Your task to perform on an android device: Open Reddit.com Image 0: 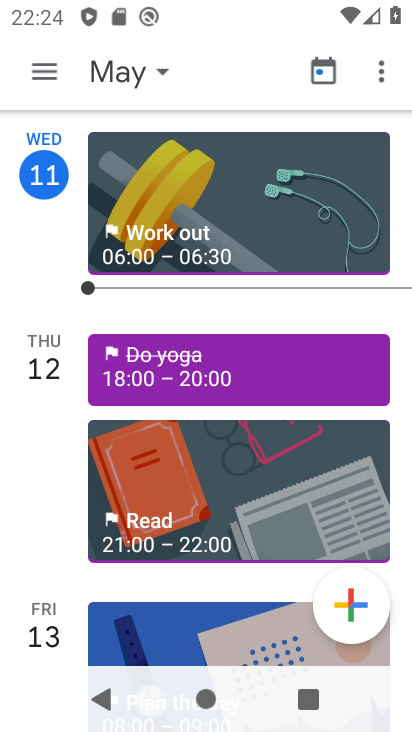
Step 0: press home button
Your task to perform on an android device: Open Reddit.com Image 1: 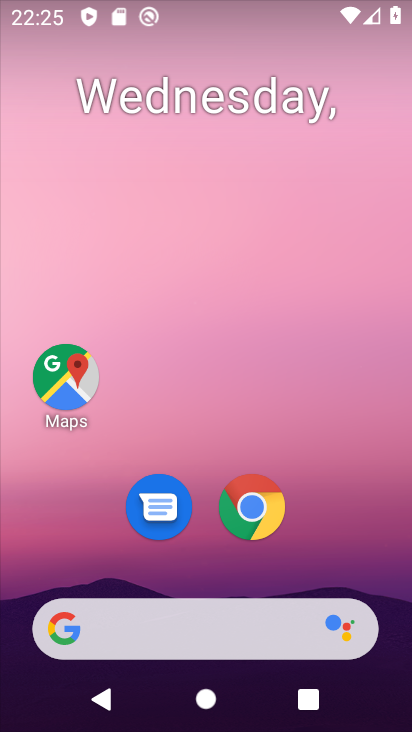
Step 1: click (256, 495)
Your task to perform on an android device: Open Reddit.com Image 2: 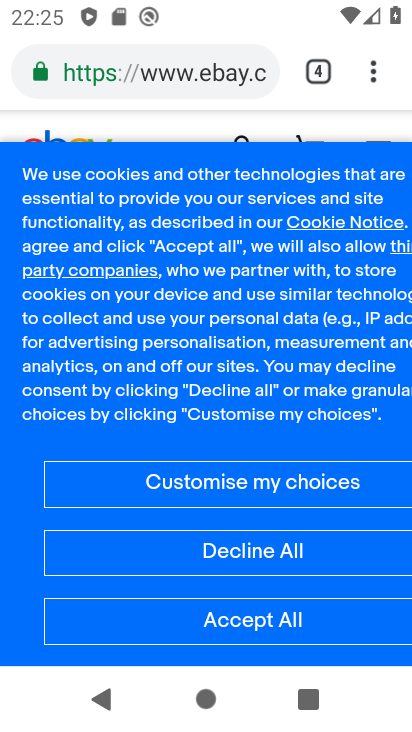
Step 2: click (347, 73)
Your task to perform on an android device: Open Reddit.com Image 3: 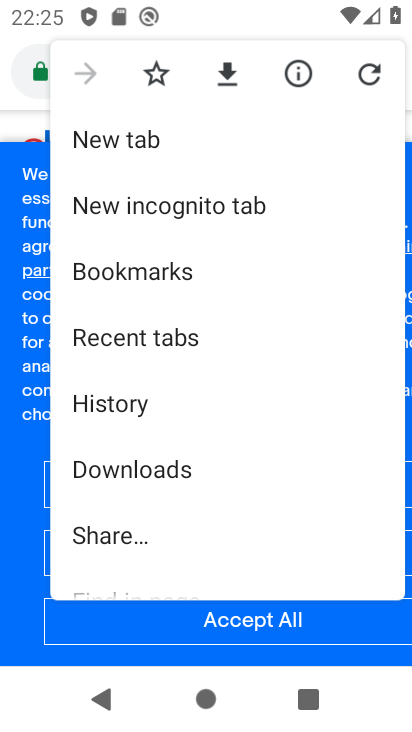
Step 3: click (145, 148)
Your task to perform on an android device: Open Reddit.com Image 4: 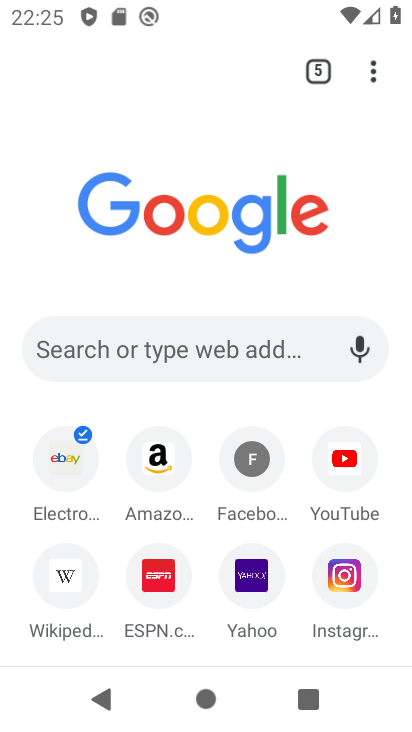
Step 4: click (234, 328)
Your task to perform on an android device: Open Reddit.com Image 5: 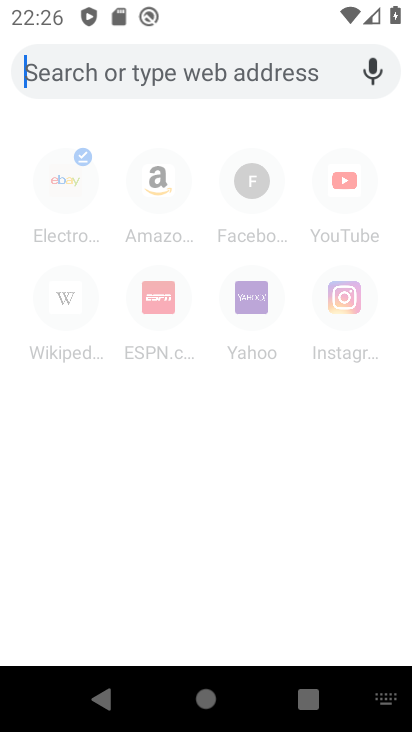
Step 5: type " Reddit.com"
Your task to perform on an android device: Open Reddit.com Image 6: 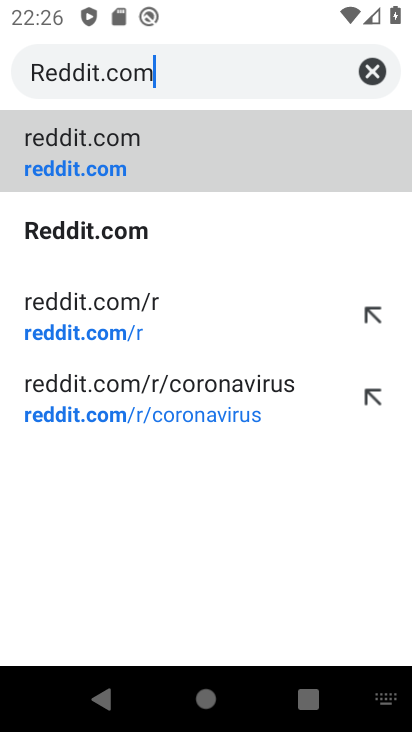
Step 6: click (116, 229)
Your task to perform on an android device: Open Reddit.com Image 7: 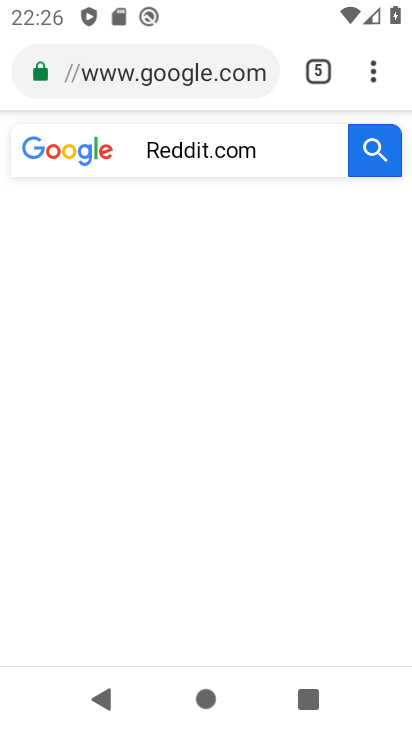
Step 7: task complete